Your task to perform on an android device: What is the recent news? Image 0: 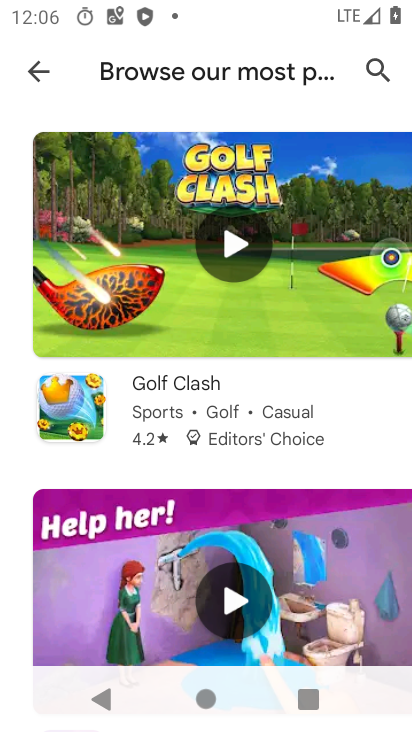
Step 0: press home button
Your task to perform on an android device: What is the recent news? Image 1: 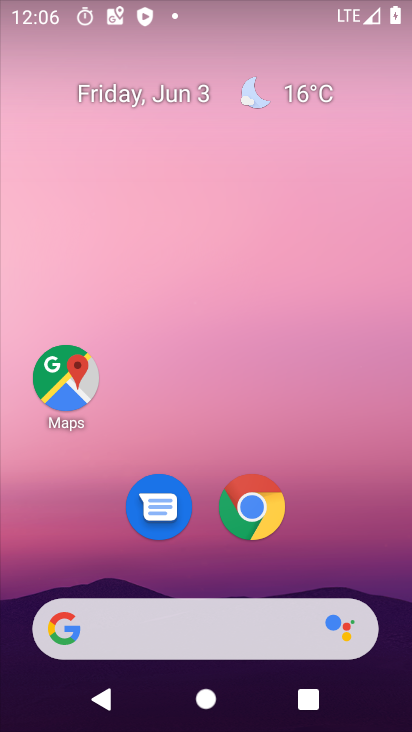
Step 1: click (402, 635)
Your task to perform on an android device: What is the recent news? Image 2: 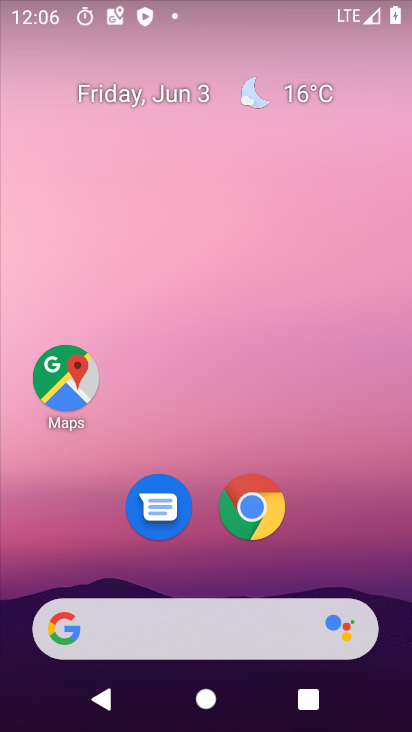
Step 2: drag from (353, 431) to (230, 125)
Your task to perform on an android device: What is the recent news? Image 3: 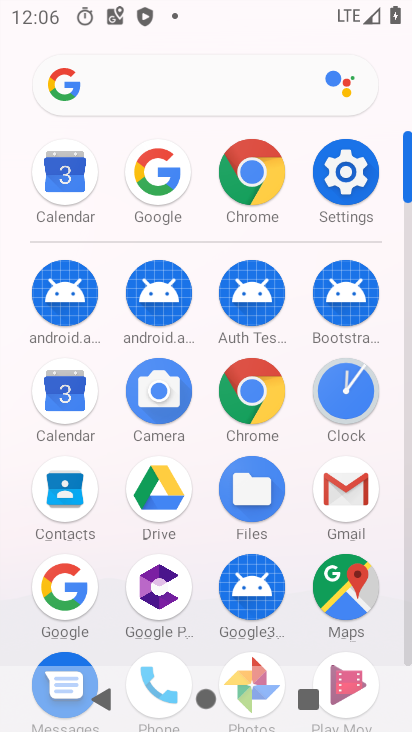
Step 3: click (66, 589)
Your task to perform on an android device: What is the recent news? Image 4: 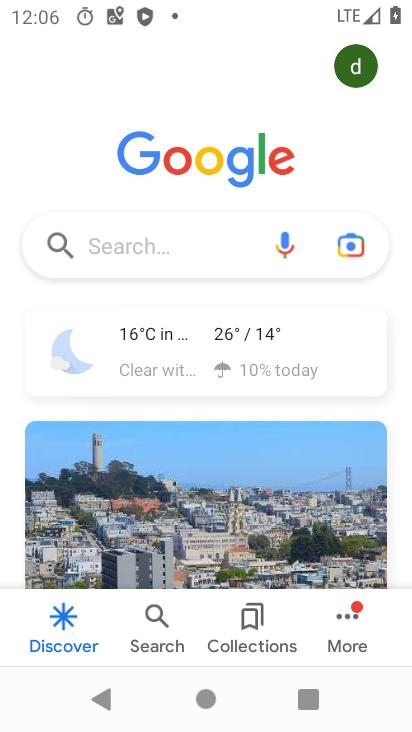
Step 4: click (161, 267)
Your task to perform on an android device: What is the recent news? Image 5: 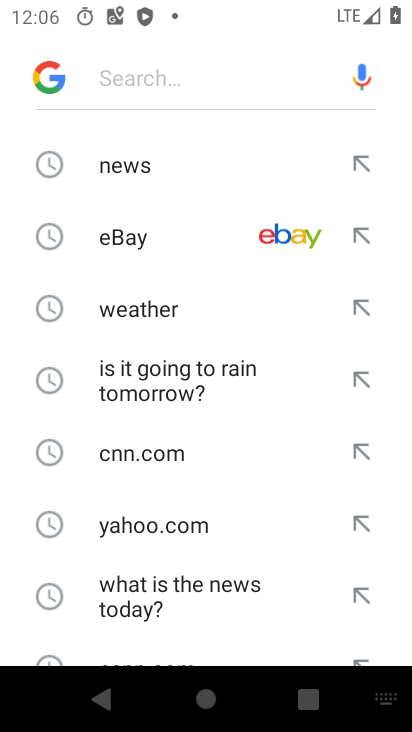
Step 5: click (240, 578)
Your task to perform on an android device: What is the recent news? Image 6: 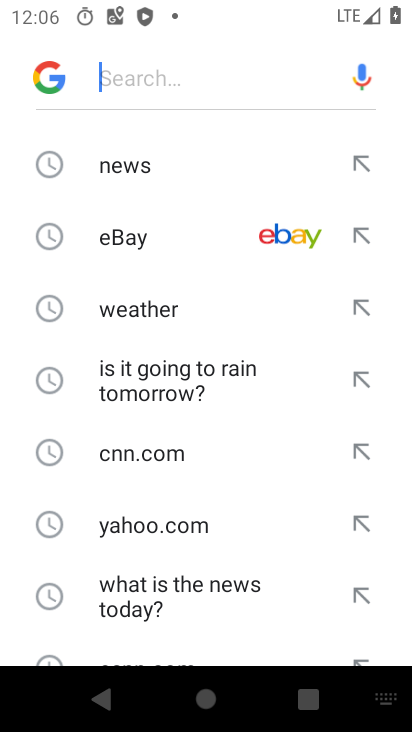
Step 6: drag from (240, 578) to (221, 325)
Your task to perform on an android device: What is the recent news? Image 7: 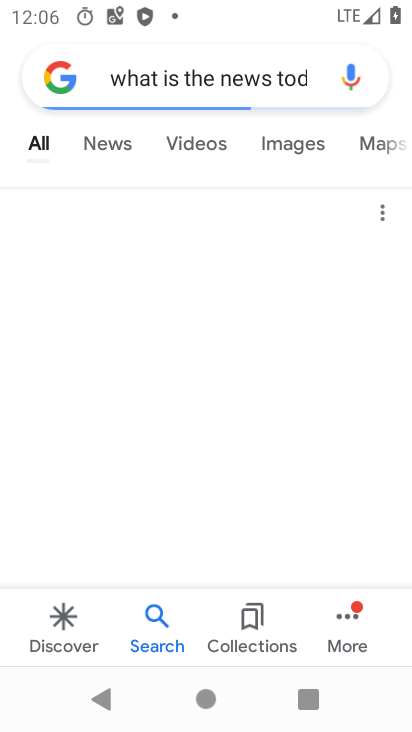
Step 7: press back button
Your task to perform on an android device: What is the recent news? Image 8: 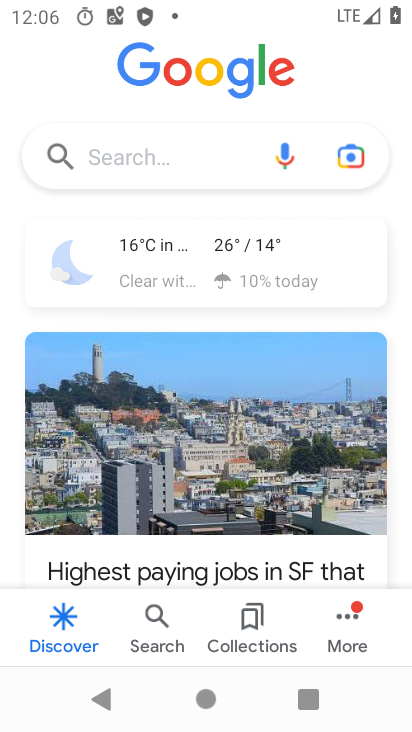
Step 8: click (169, 147)
Your task to perform on an android device: What is the recent news? Image 9: 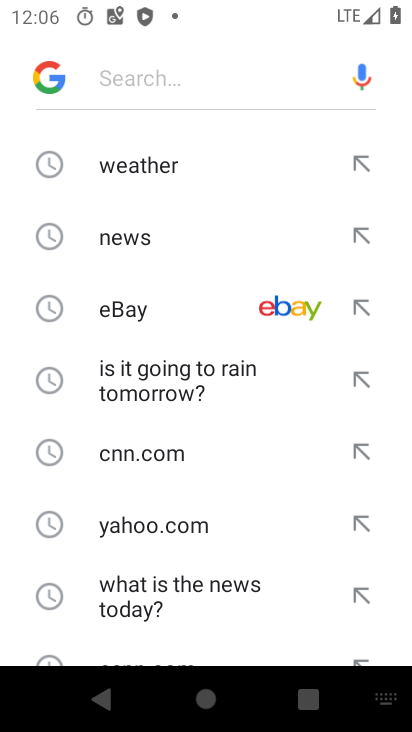
Step 9: drag from (131, 566) to (176, 387)
Your task to perform on an android device: What is the recent news? Image 10: 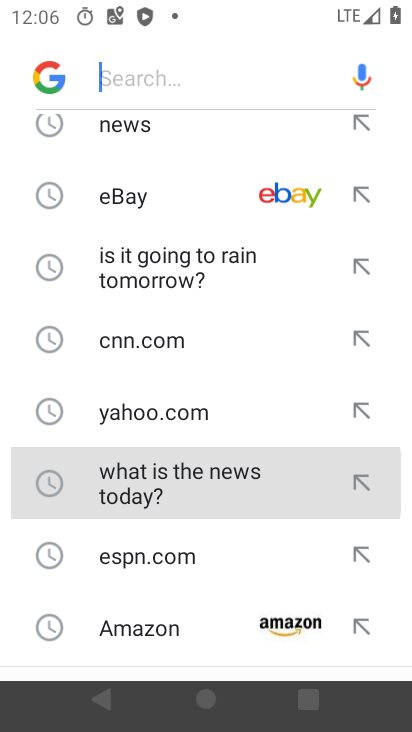
Step 10: drag from (200, 221) to (198, 145)
Your task to perform on an android device: What is the recent news? Image 11: 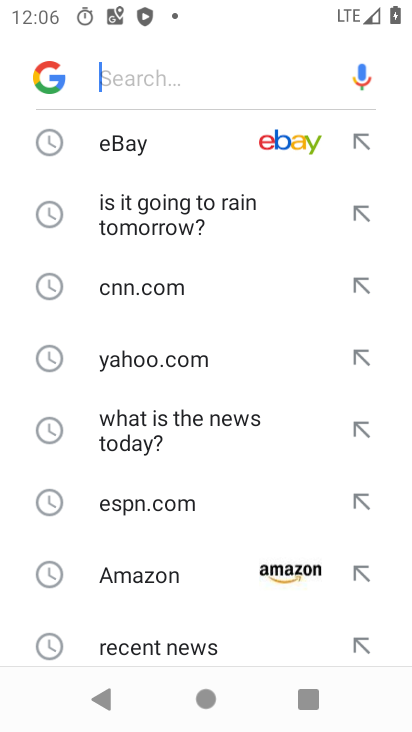
Step 11: click (108, 641)
Your task to perform on an android device: What is the recent news? Image 12: 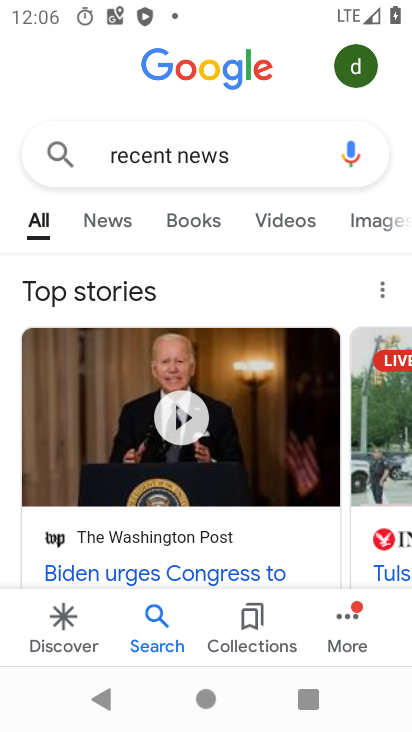
Step 12: task complete